Your task to perform on an android device: Show me recent news Image 0: 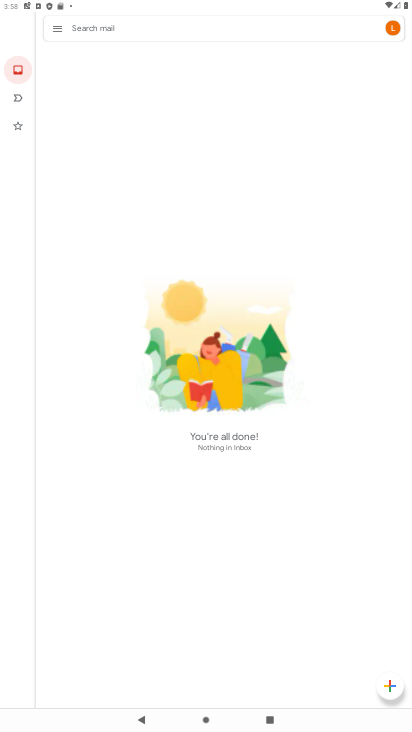
Step 0: press home button
Your task to perform on an android device: Show me recent news Image 1: 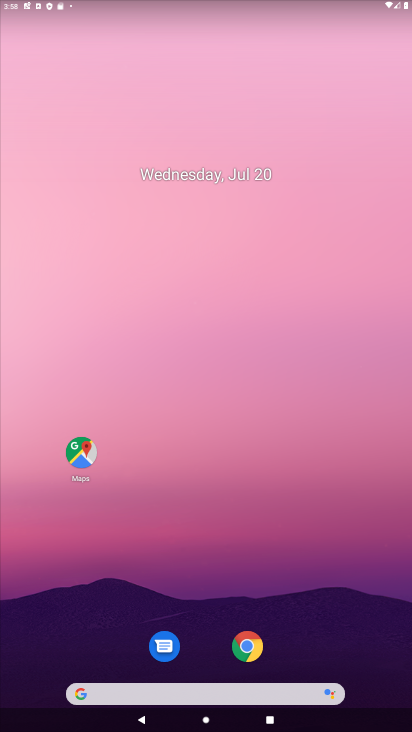
Step 1: drag from (209, 613) to (211, 252)
Your task to perform on an android device: Show me recent news Image 2: 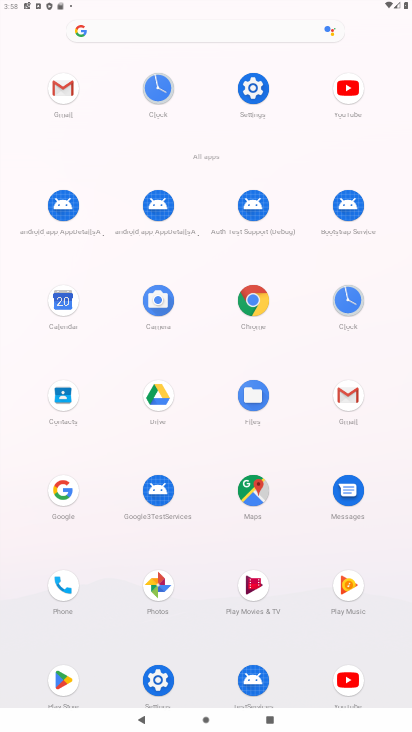
Step 2: click (64, 496)
Your task to perform on an android device: Show me recent news Image 3: 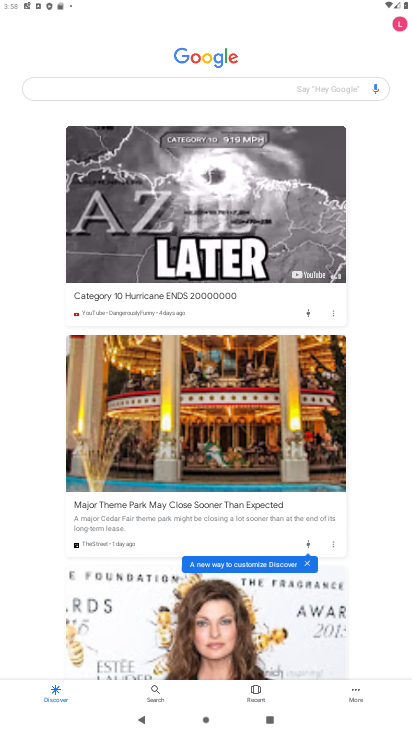
Step 3: click (236, 88)
Your task to perform on an android device: Show me recent news Image 4: 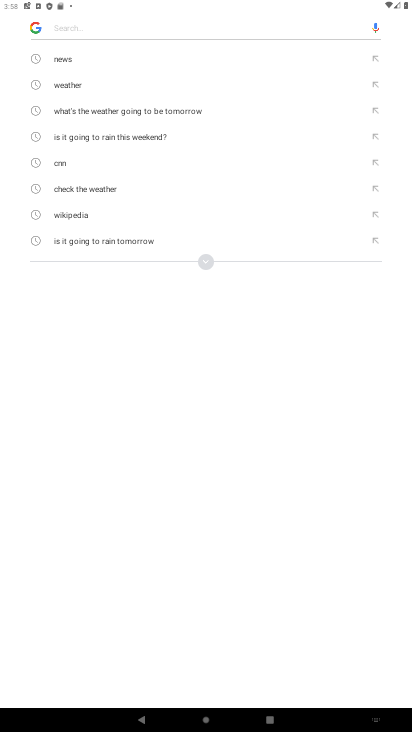
Step 4: click (87, 63)
Your task to perform on an android device: Show me recent news Image 5: 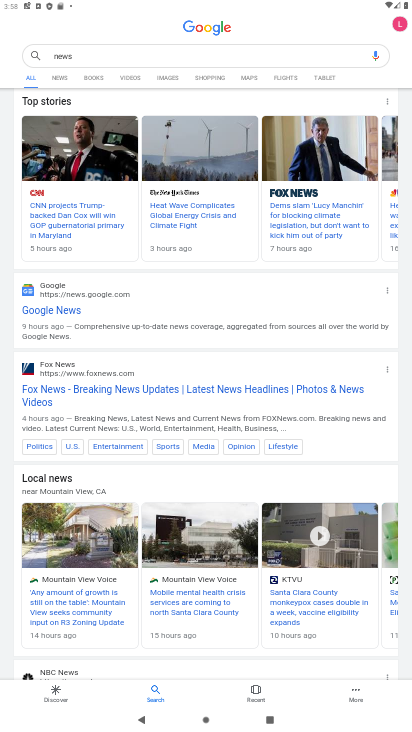
Step 5: click (70, 74)
Your task to perform on an android device: Show me recent news Image 6: 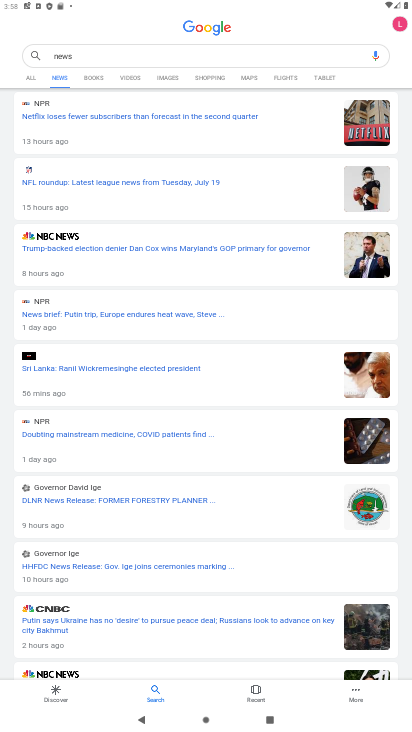
Step 6: task complete